Your task to perform on an android device: set default search engine in the chrome app Image 0: 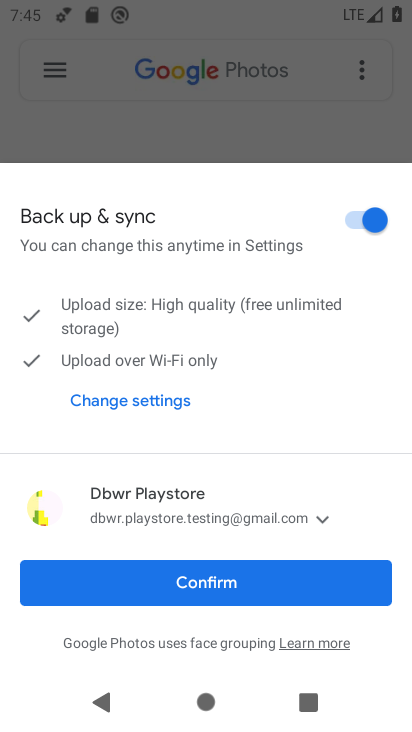
Step 0: press home button
Your task to perform on an android device: set default search engine in the chrome app Image 1: 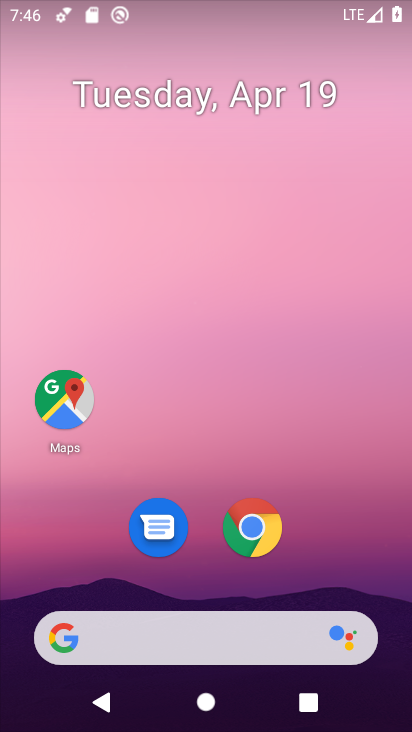
Step 1: drag from (348, 554) to (344, 124)
Your task to perform on an android device: set default search engine in the chrome app Image 2: 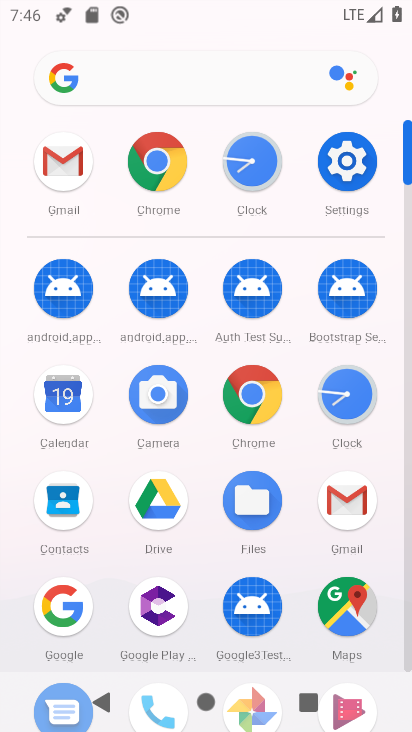
Step 2: click (166, 173)
Your task to perform on an android device: set default search engine in the chrome app Image 3: 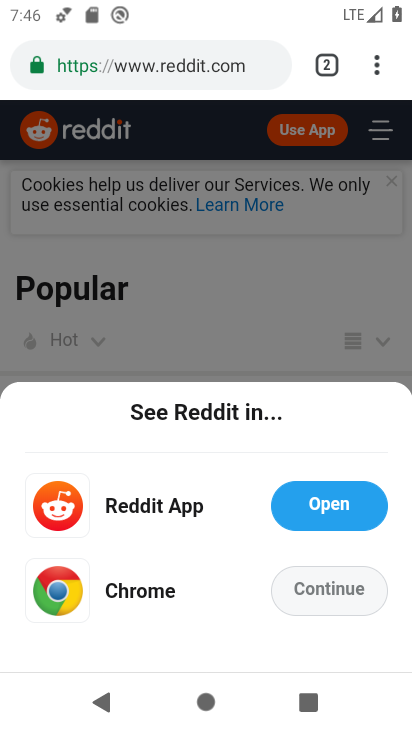
Step 3: click (374, 59)
Your task to perform on an android device: set default search engine in the chrome app Image 4: 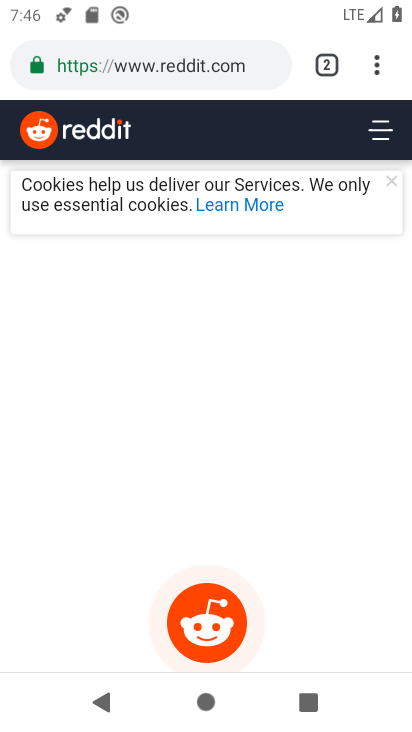
Step 4: click (381, 68)
Your task to perform on an android device: set default search engine in the chrome app Image 5: 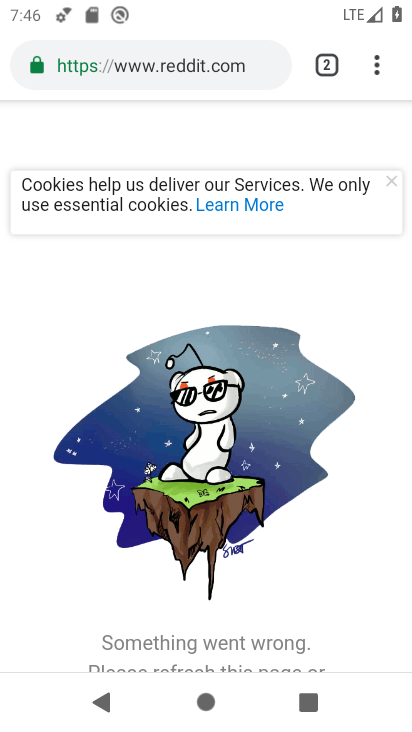
Step 5: click (404, 85)
Your task to perform on an android device: set default search engine in the chrome app Image 6: 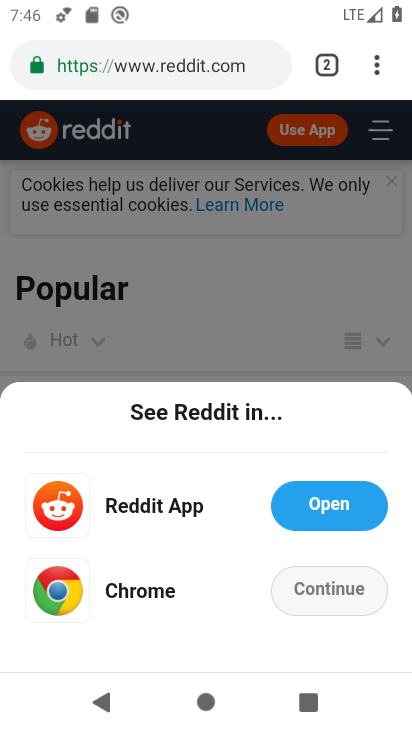
Step 6: click (406, 91)
Your task to perform on an android device: set default search engine in the chrome app Image 7: 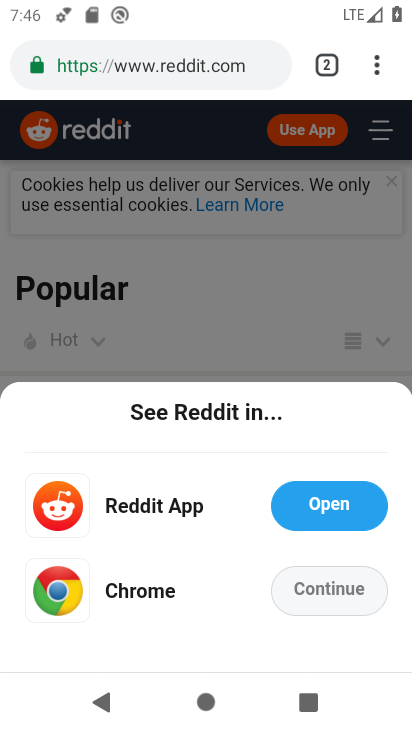
Step 7: click (364, 91)
Your task to perform on an android device: set default search engine in the chrome app Image 8: 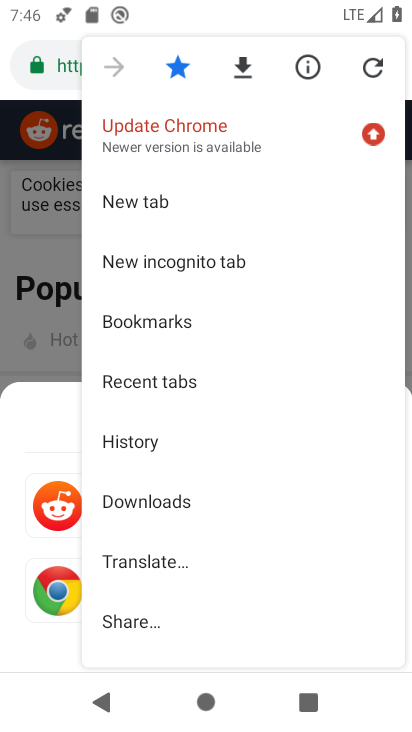
Step 8: drag from (242, 528) to (286, 182)
Your task to perform on an android device: set default search engine in the chrome app Image 9: 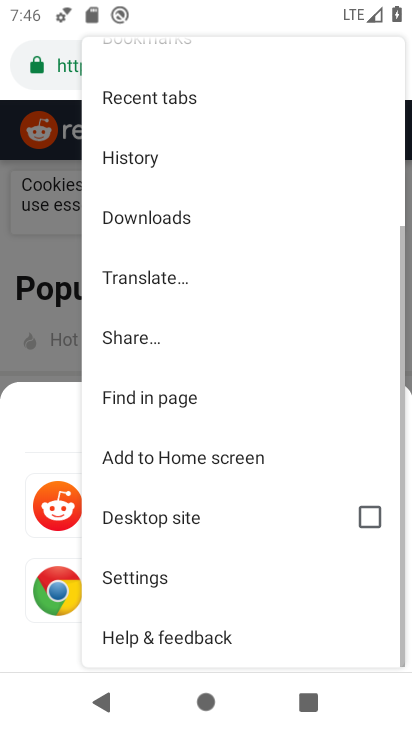
Step 9: click (148, 572)
Your task to perform on an android device: set default search engine in the chrome app Image 10: 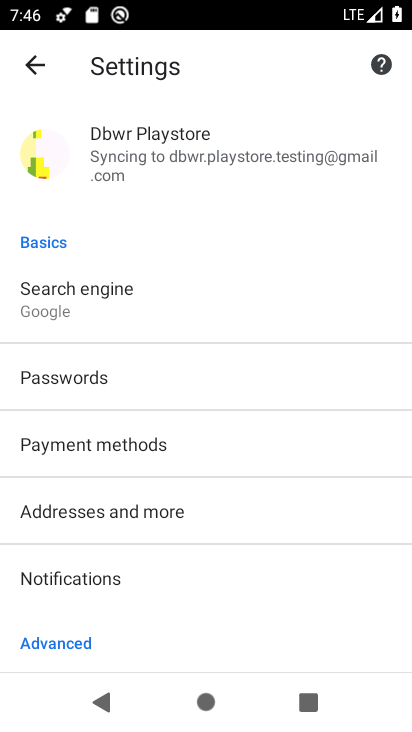
Step 10: drag from (258, 545) to (287, 256)
Your task to perform on an android device: set default search engine in the chrome app Image 11: 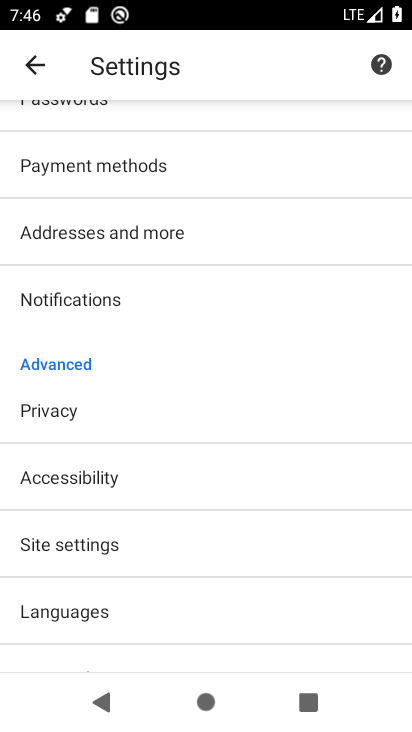
Step 11: drag from (293, 167) to (282, 442)
Your task to perform on an android device: set default search engine in the chrome app Image 12: 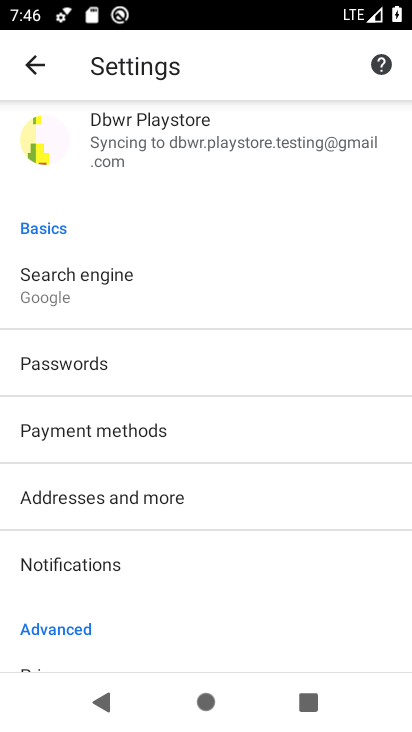
Step 12: click (116, 273)
Your task to perform on an android device: set default search engine in the chrome app Image 13: 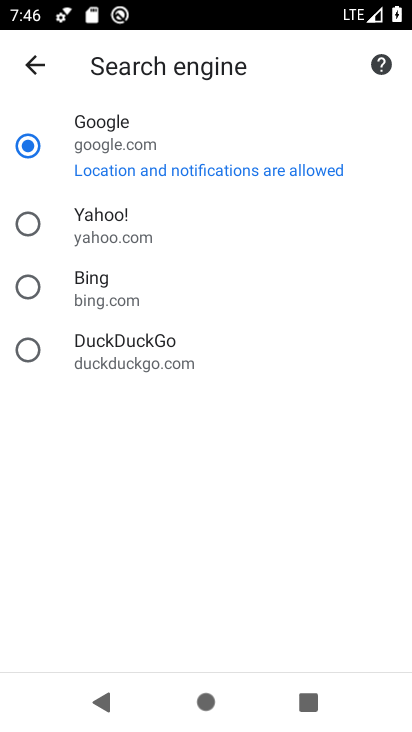
Step 13: click (118, 222)
Your task to perform on an android device: set default search engine in the chrome app Image 14: 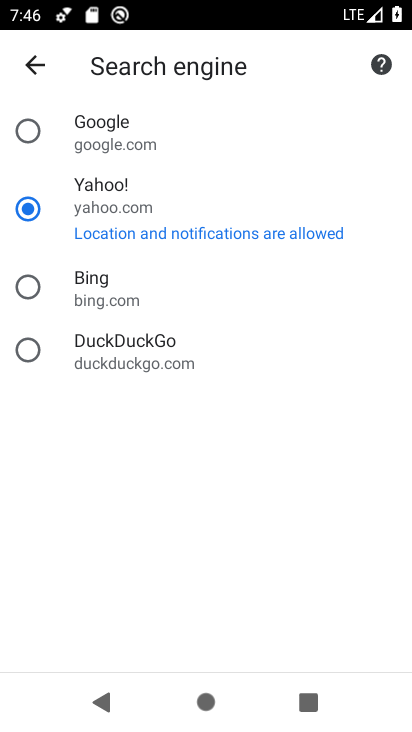
Step 14: task complete